Your task to perform on an android device: empty trash in google photos Image 0: 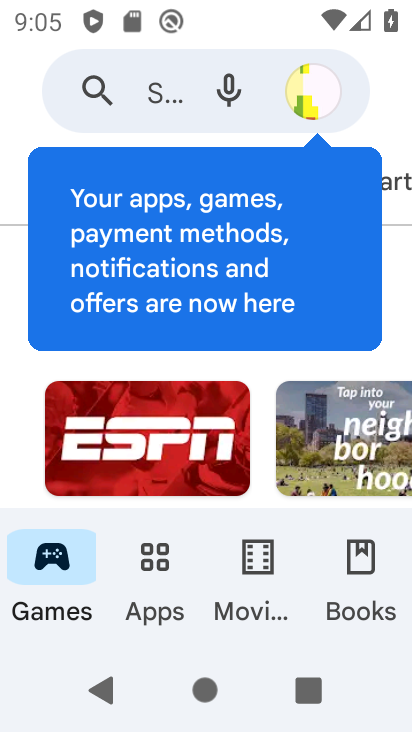
Step 0: press home button
Your task to perform on an android device: empty trash in google photos Image 1: 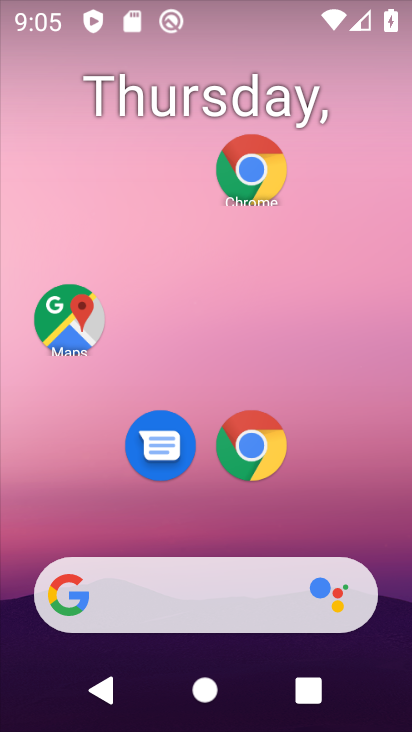
Step 1: drag from (202, 546) to (267, 36)
Your task to perform on an android device: empty trash in google photos Image 2: 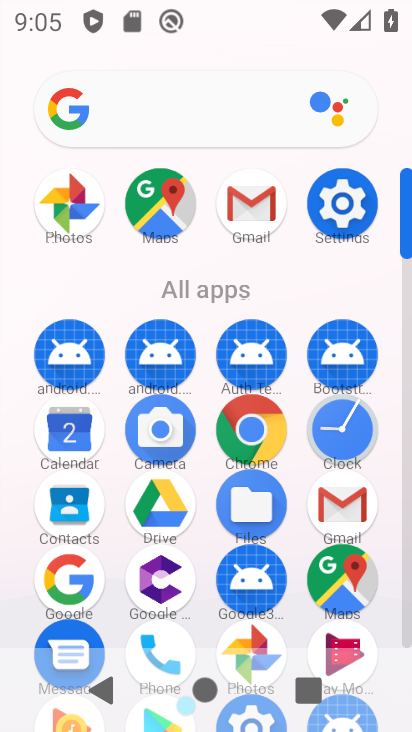
Step 2: click (75, 189)
Your task to perform on an android device: empty trash in google photos Image 3: 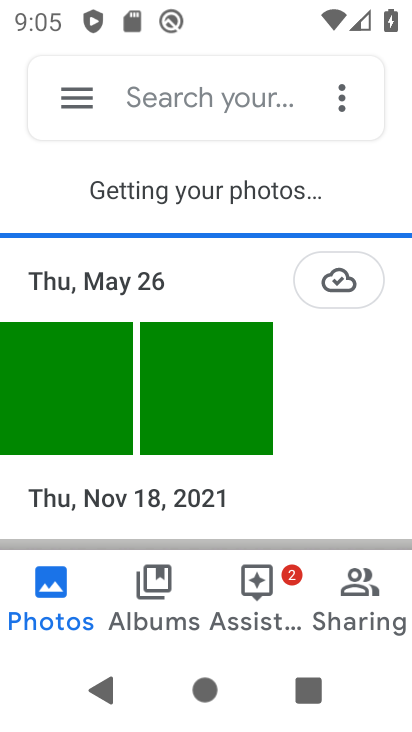
Step 3: click (71, 88)
Your task to perform on an android device: empty trash in google photos Image 4: 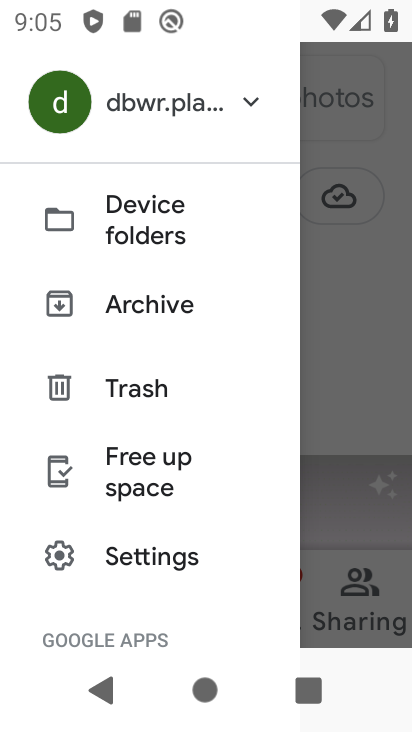
Step 4: click (111, 377)
Your task to perform on an android device: empty trash in google photos Image 5: 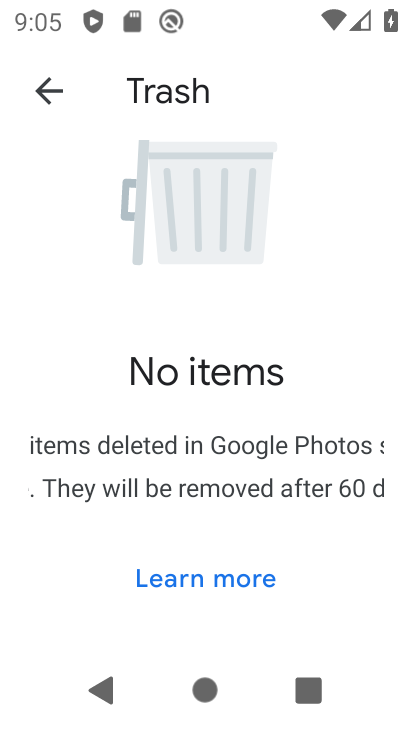
Step 5: task complete